Your task to perform on an android device: Go to notification settings Image 0: 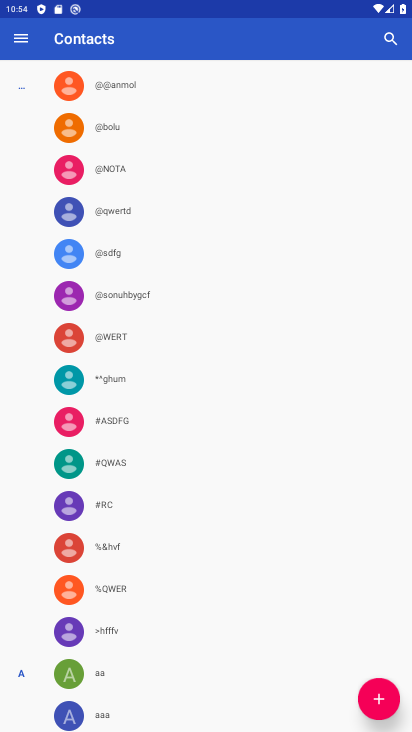
Step 0: press home button
Your task to perform on an android device: Go to notification settings Image 1: 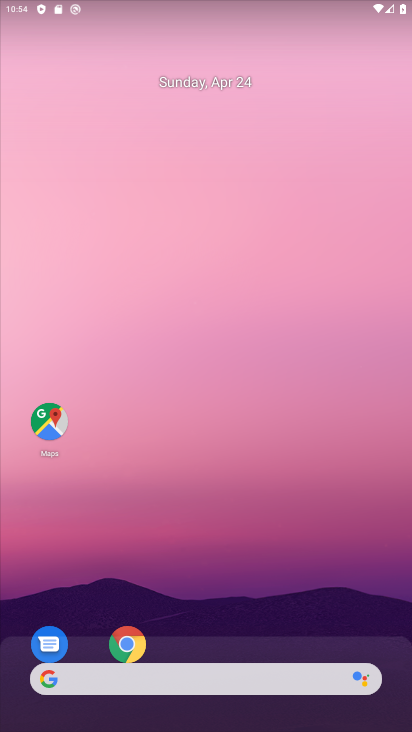
Step 1: drag from (312, 530) to (311, 19)
Your task to perform on an android device: Go to notification settings Image 2: 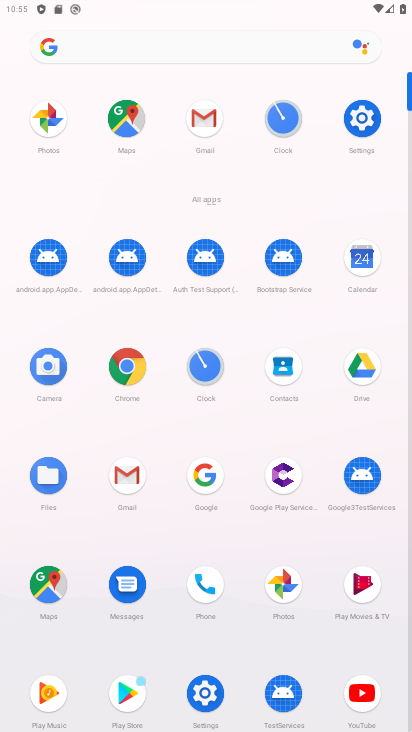
Step 2: click (356, 129)
Your task to perform on an android device: Go to notification settings Image 3: 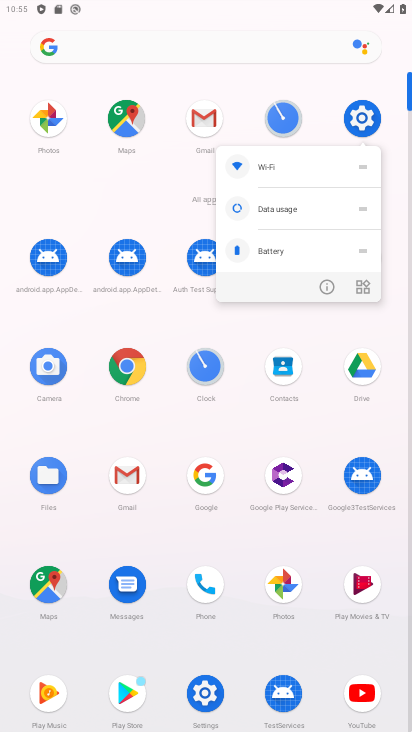
Step 3: click (361, 116)
Your task to perform on an android device: Go to notification settings Image 4: 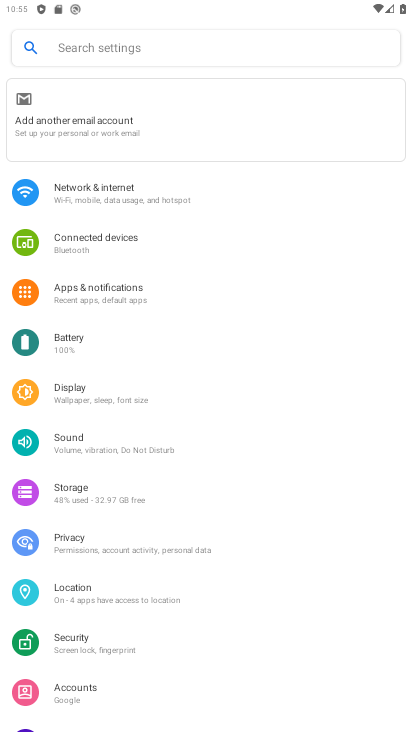
Step 4: click (89, 297)
Your task to perform on an android device: Go to notification settings Image 5: 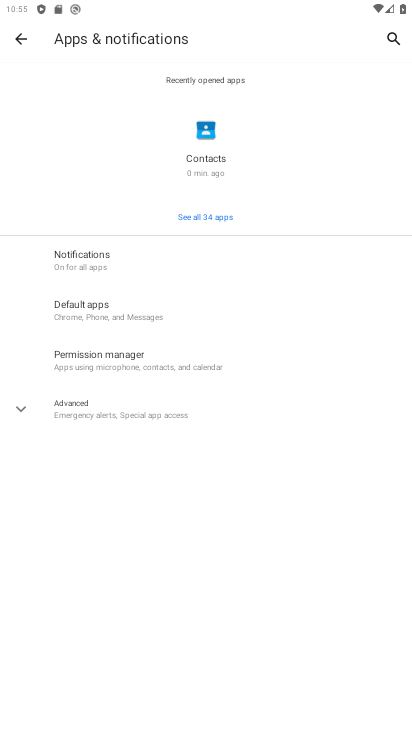
Step 5: task complete